Your task to perform on an android device: What's the weather? Image 0: 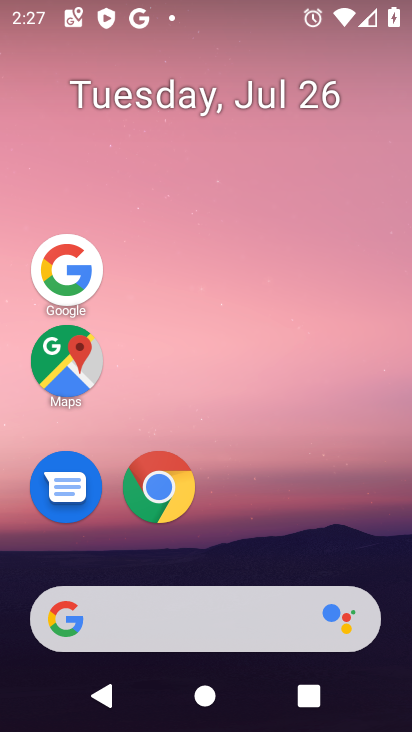
Step 0: drag from (261, 578) to (282, 199)
Your task to perform on an android device: What's the weather? Image 1: 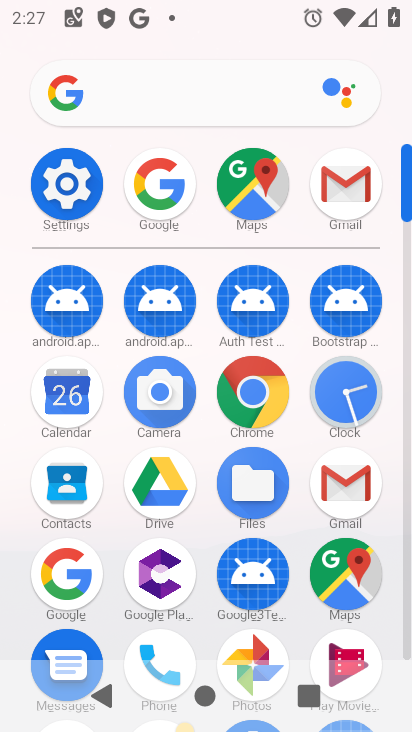
Step 1: drag from (277, 529) to (298, 285)
Your task to perform on an android device: What's the weather? Image 2: 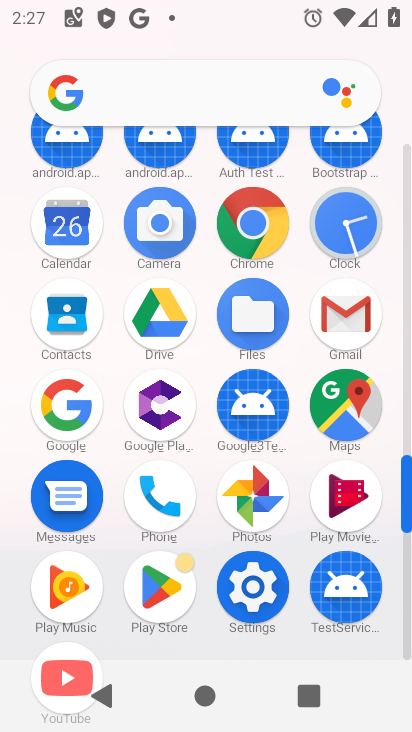
Step 2: click (73, 404)
Your task to perform on an android device: What's the weather? Image 3: 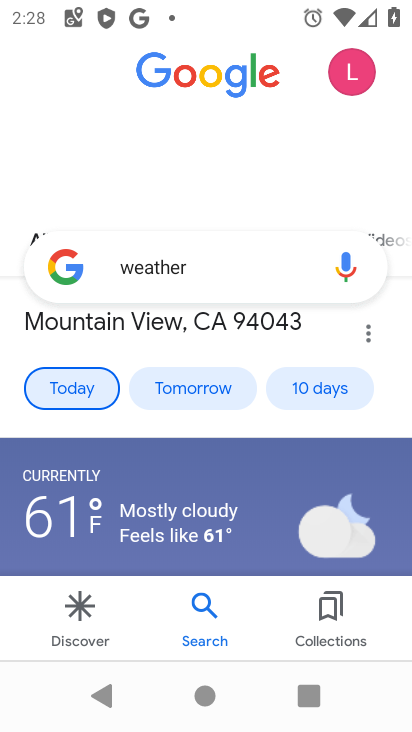
Step 3: task complete